Your task to perform on an android device: What's on my calendar today? Image 0: 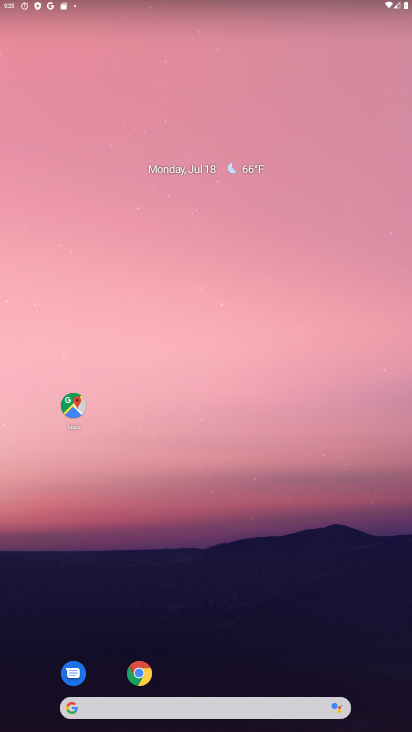
Step 0: drag from (230, 690) to (265, 107)
Your task to perform on an android device: What's on my calendar today? Image 1: 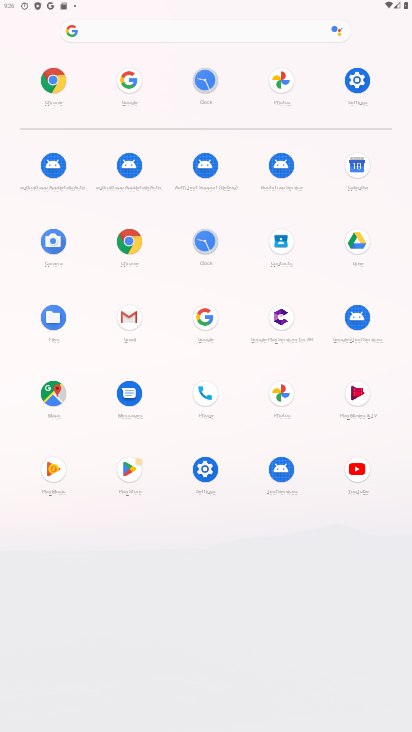
Step 1: click (360, 169)
Your task to perform on an android device: What's on my calendar today? Image 2: 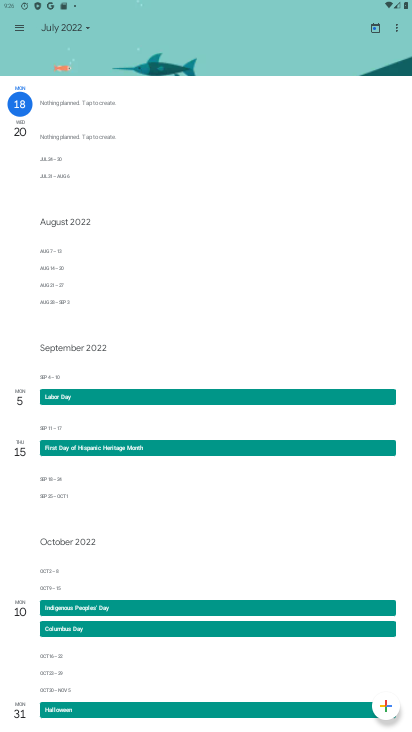
Step 2: click (77, 28)
Your task to perform on an android device: What's on my calendar today? Image 3: 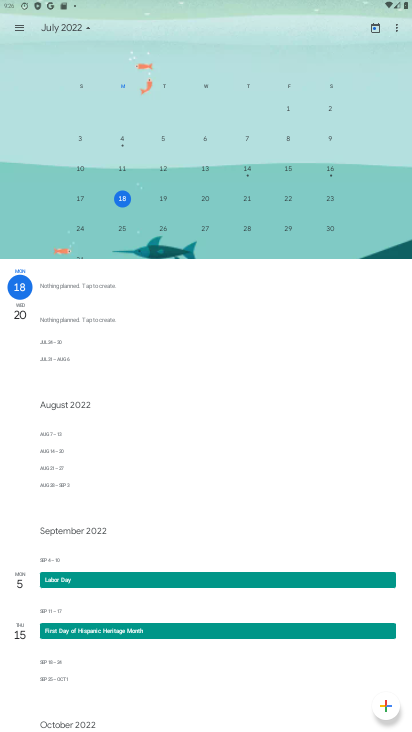
Step 3: click (124, 201)
Your task to perform on an android device: What's on my calendar today? Image 4: 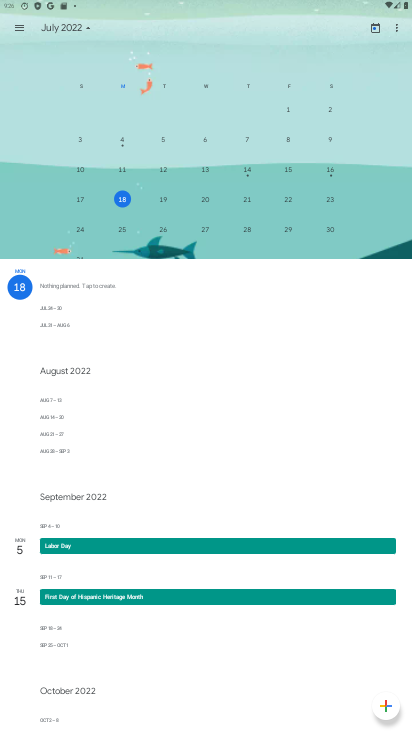
Step 4: task complete